Your task to perform on an android device: When is my next appointment? Image 0: 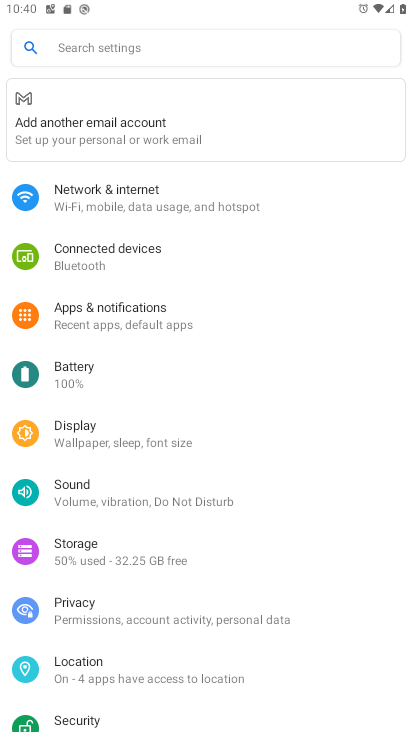
Step 0: press home button
Your task to perform on an android device: When is my next appointment? Image 1: 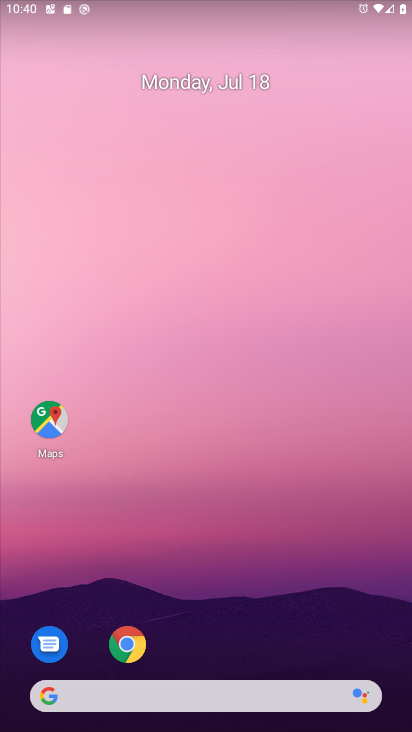
Step 1: drag from (262, 666) to (219, 157)
Your task to perform on an android device: When is my next appointment? Image 2: 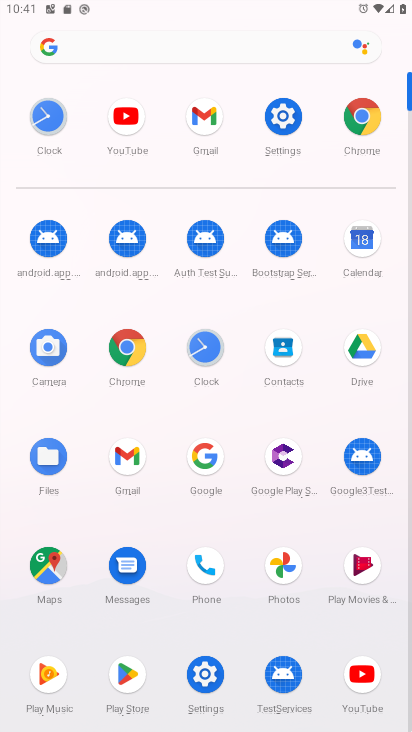
Step 2: click (372, 237)
Your task to perform on an android device: When is my next appointment? Image 3: 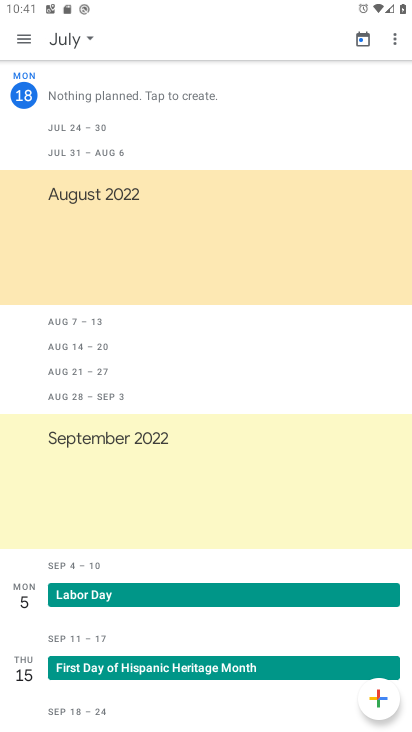
Step 3: task complete